Your task to perform on an android device: Go to settings Image 0: 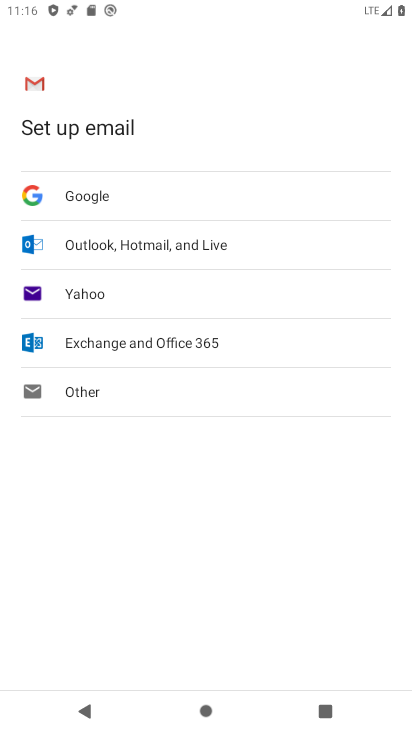
Step 0: press home button
Your task to perform on an android device: Go to settings Image 1: 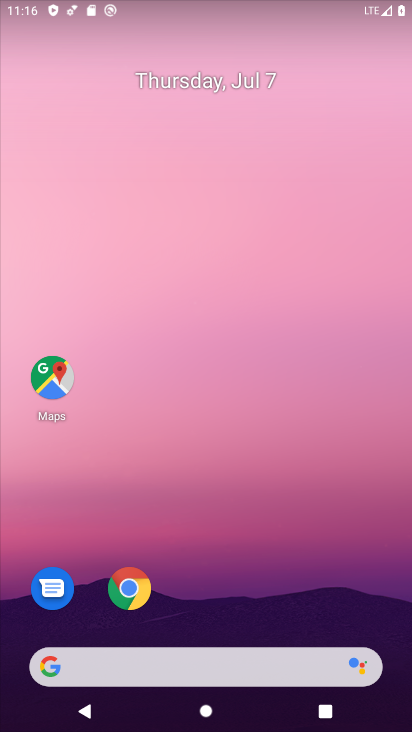
Step 1: drag from (218, 619) to (237, 1)
Your task to perform on an android device: Go to settings Image 2: 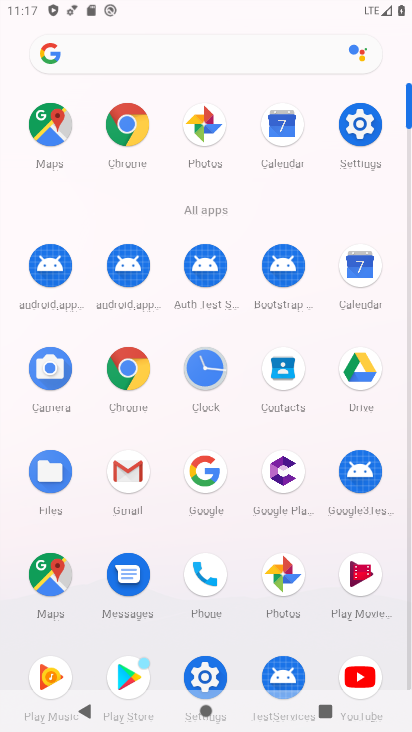
Step 2: click (361, 126)
Your task to perform on an android device: Go to settings Image 3: 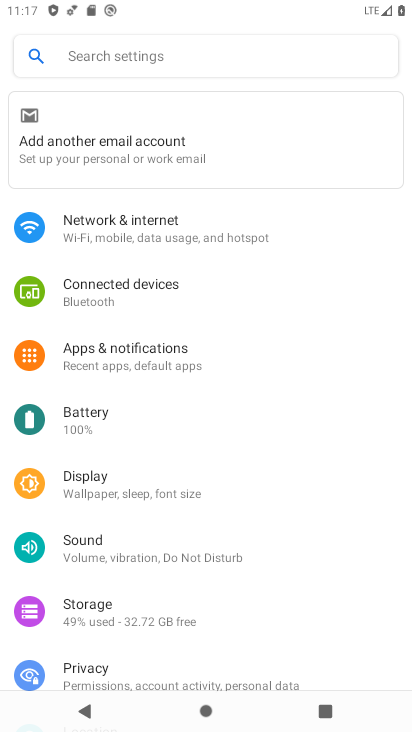
Step 3: task complete